Your task to perform on an android device: What is the news today? Image 0: 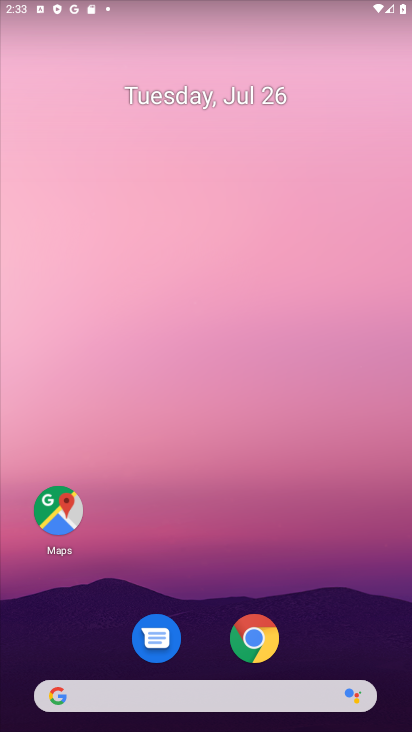
Step 0: click (302, 689)
Your task to perform on an android device: What is the news today? Image 1: 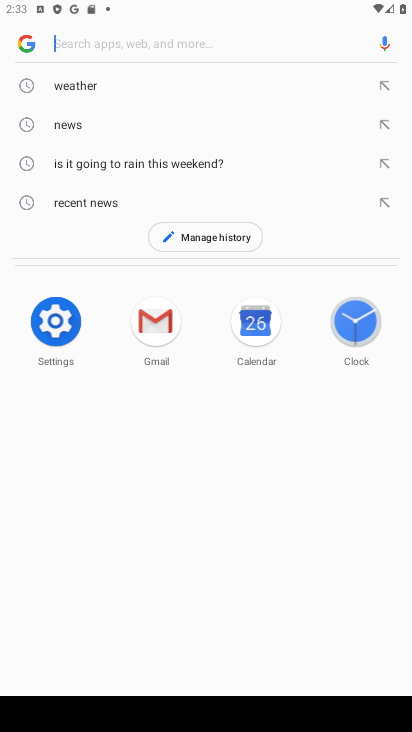
Step 1: type "What is the news today?"
Your task to perform on an android device: What is the news today? Image 2: 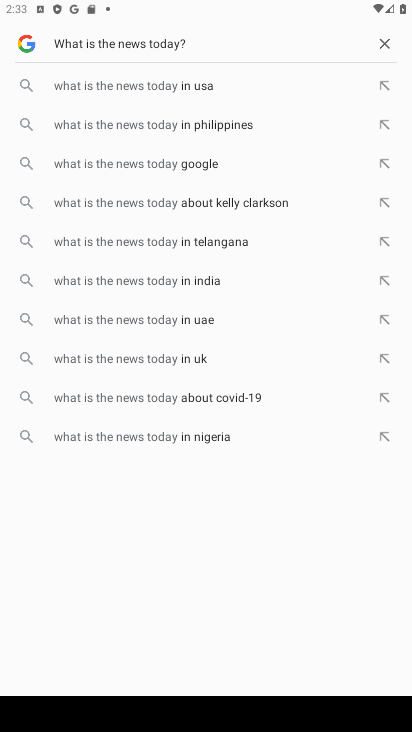
Step 2: press enter
Your task to perform on an android device: What is the news today? Image 3: 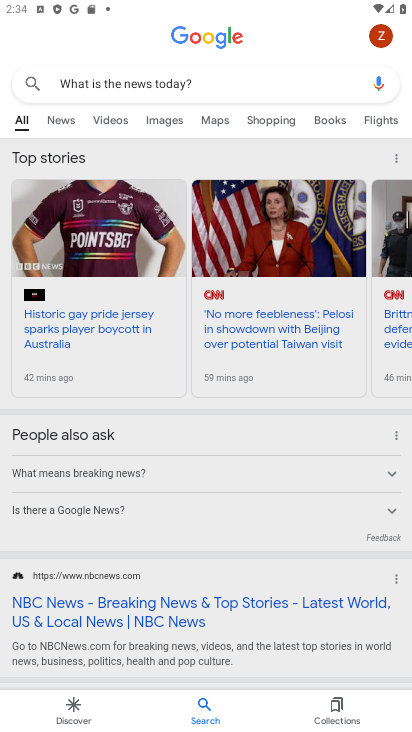
Step 3: task complete